Your task to perform on an android device: open sync settings in chrome Image 0: 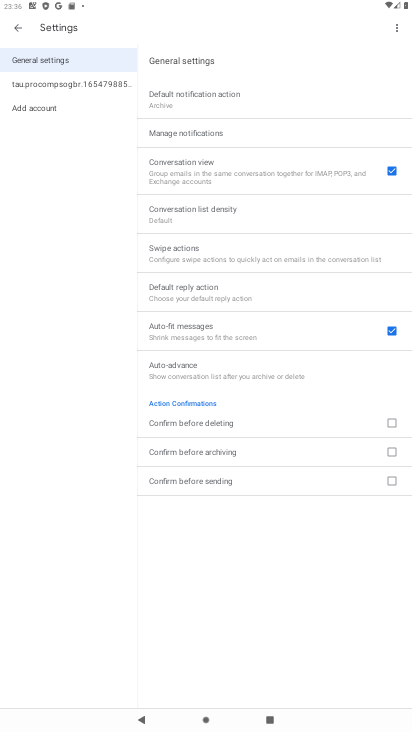
Step 0: drag from (218, 656) to (287, 94)
Your task to perform on an android device: open sync settings in chrome Image 1: 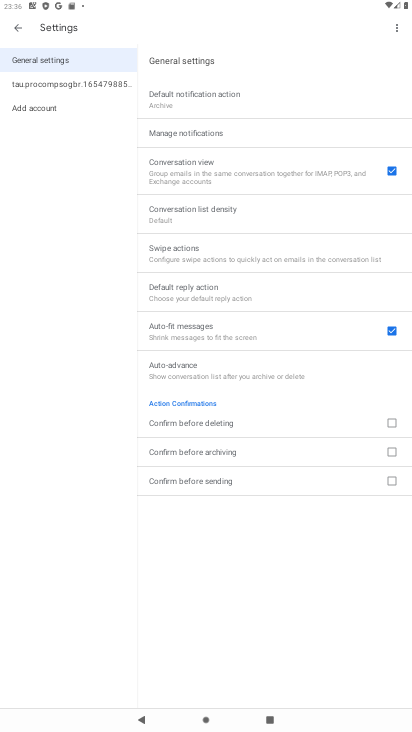
Step 1: press home button
Your task to perform on an android device: open sync settings in chrome Image 2: 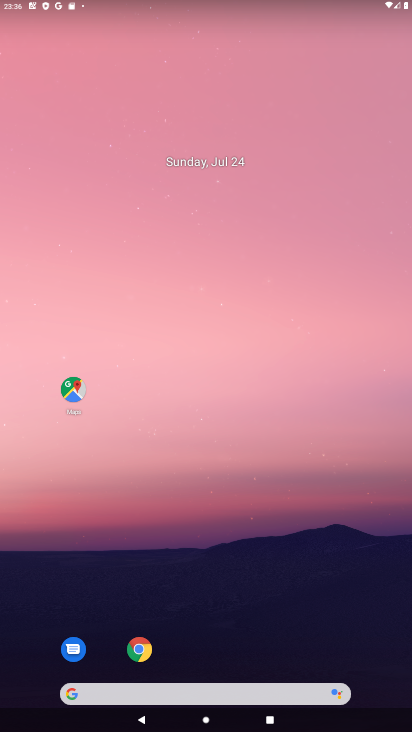
Step 2: click (138, 647)
Your task to perform on an android device: open sync settings in chrome Image 3: 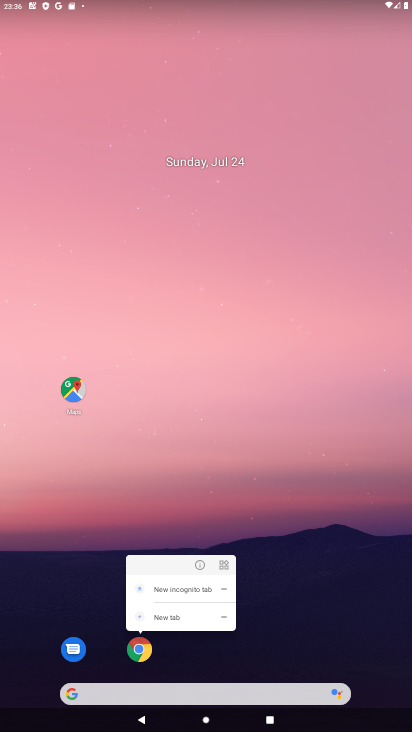
Step 3: click (139, 643)
Your task to perform on an android device: open sync settings in chrome Image 4: 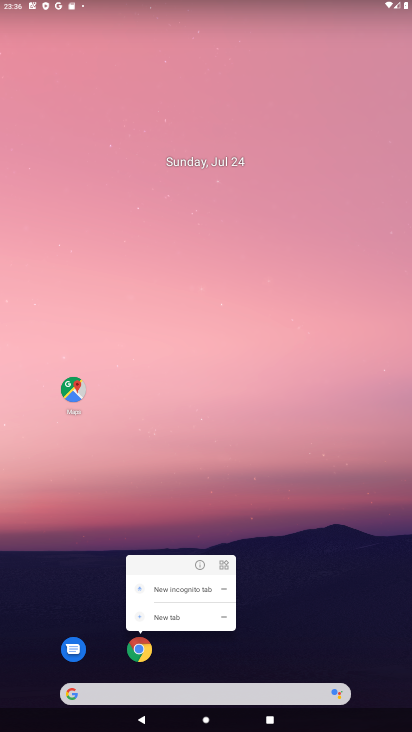
Step 4: click (139, 644)
Your task to perform on an android device: open sync settings in chrome Image 5: 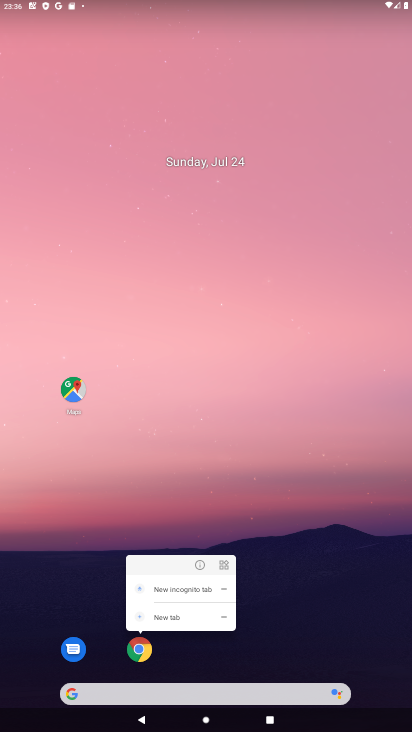
Step 5: click (139, 648)
Your task to perform on an android device: open sync settings in chrome Image 6: 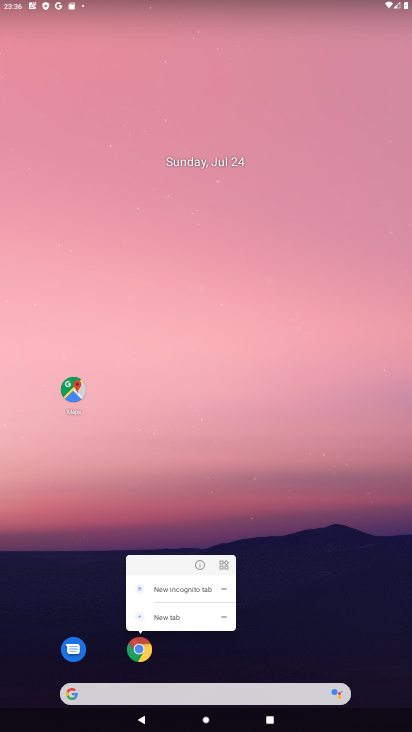
Step 6: click (183, 652)
Your task to perform on an android device: open sync settings in chrome Image 7: 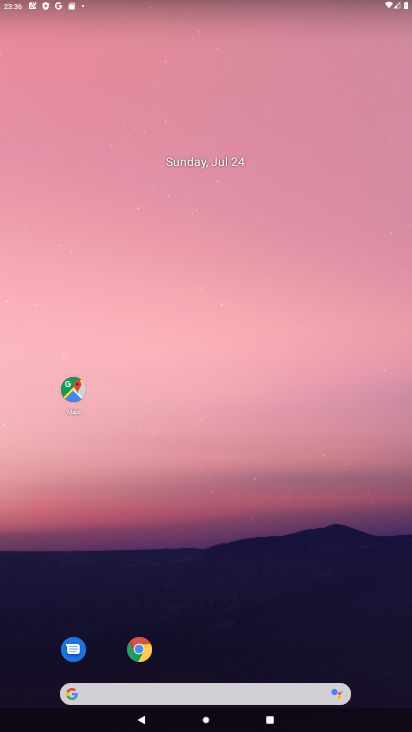
Step 7: click (140, 645)
Your task to perform on an android device: open sync settings in chrome Image 8: 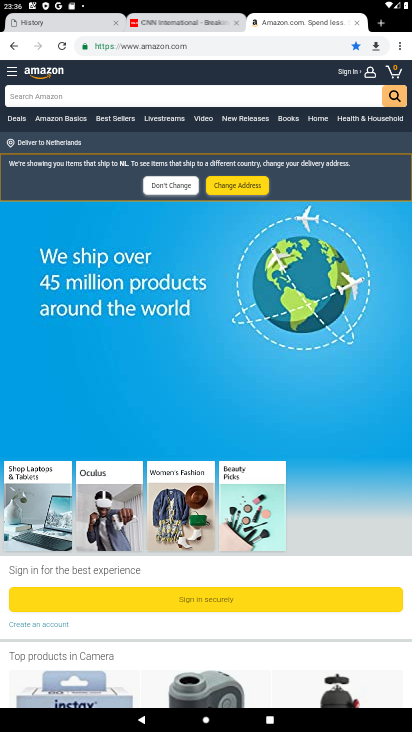
Step 8: click (397, 45)
Your task to perform on an android device: open sync settings in chrome Image 9: 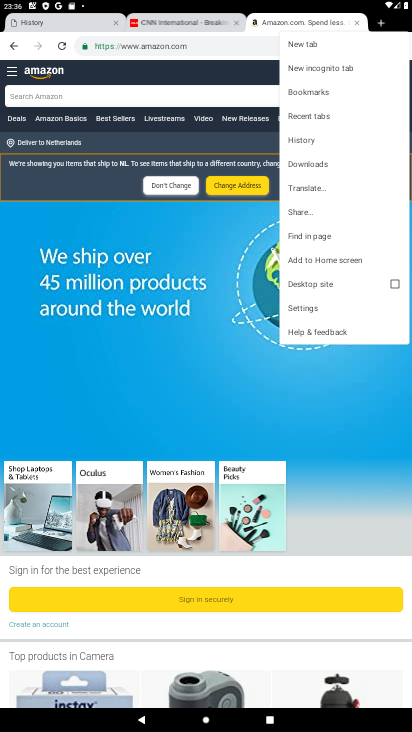
Step 9: click (324, 307)
Your task to perform on an android device: open sync settings in chrome Image 10: 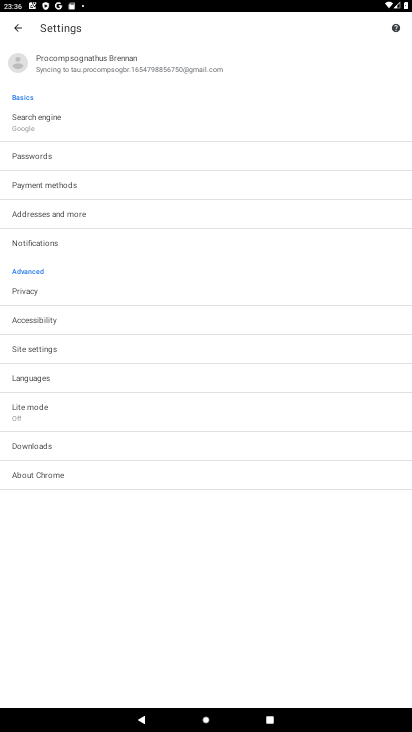
Step 10: click (114, 54)
Your task to perform on an android device: open sync settings in chrome Image 11: 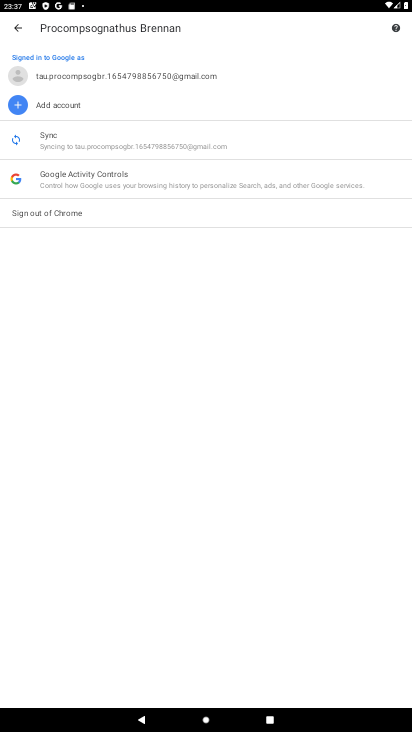
Step 11: click (92, 136)
Your task to perform on an android device: open sync settings in chrome Image 12: 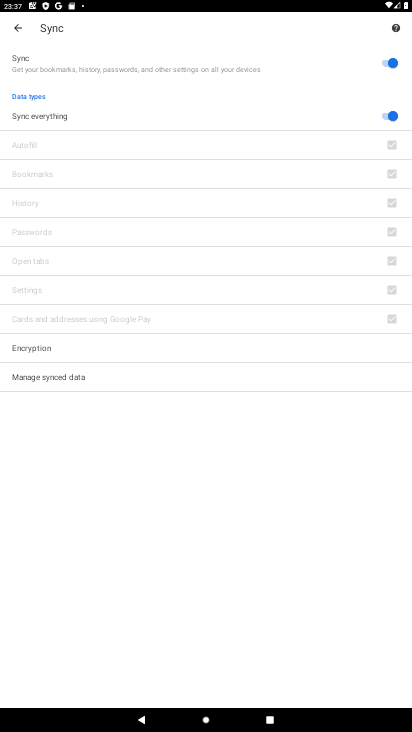
Step 12: task complete